Your task to perform on an android device: Do I have any events this weekend? Image 0: 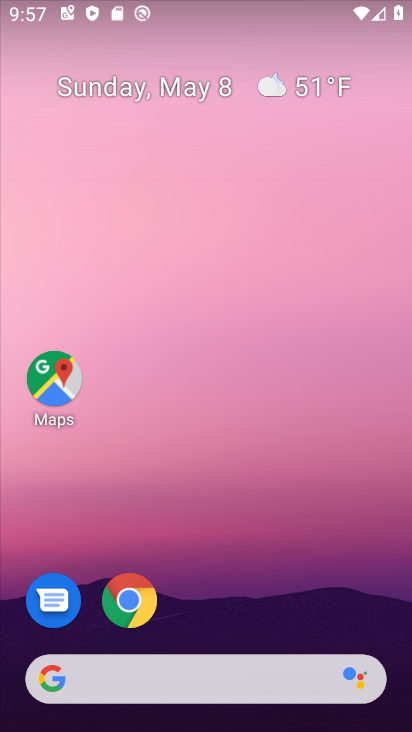
Step 0: drag from (252, 555) to (191, 0)
Your task to perform on an android device: Do I have any events this weekend? Image 1: 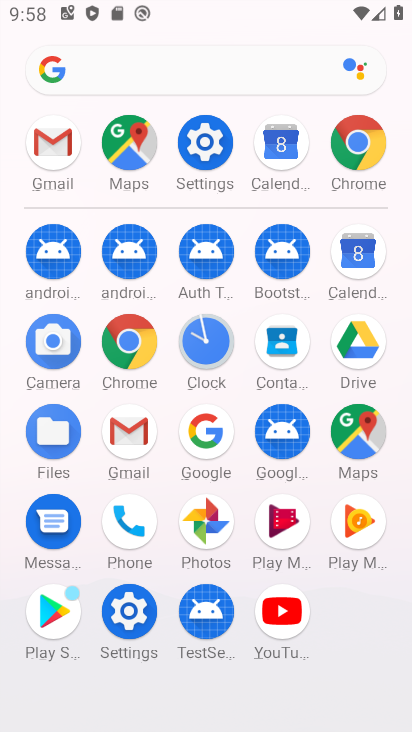
Step 1: drag from (15, 586) to (25, 268)
Your task to perform on an android device: Do I have any events this weekend? Image 2: 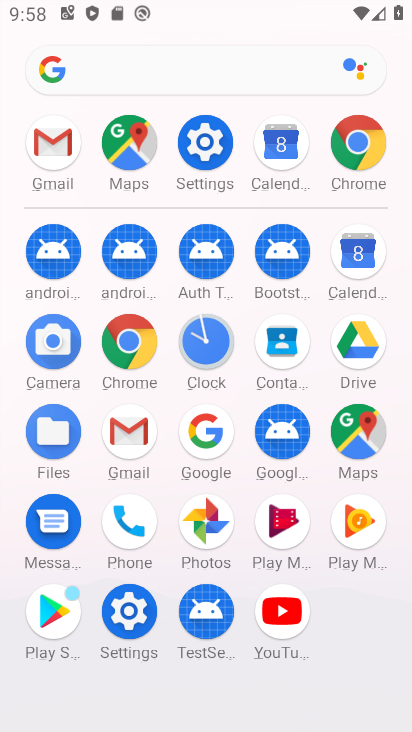
Step 2: click (10, 232)
Your task to perform on an android device: Do I have any events this weekend? Image 3: 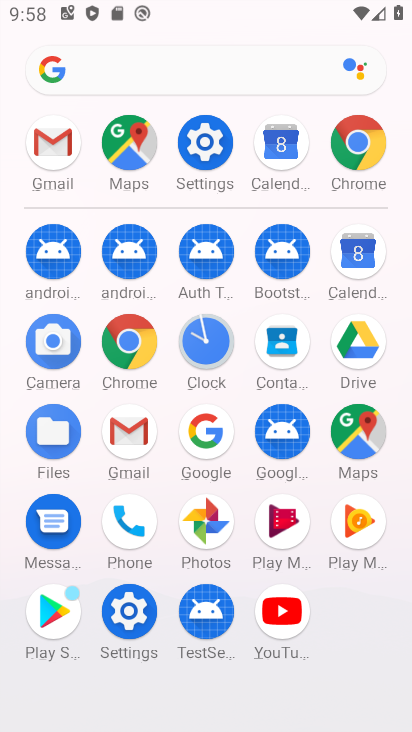
Step 3: click (352, 246)
Your task to perform on an android device: Do I have any events this weekend? Image 4: 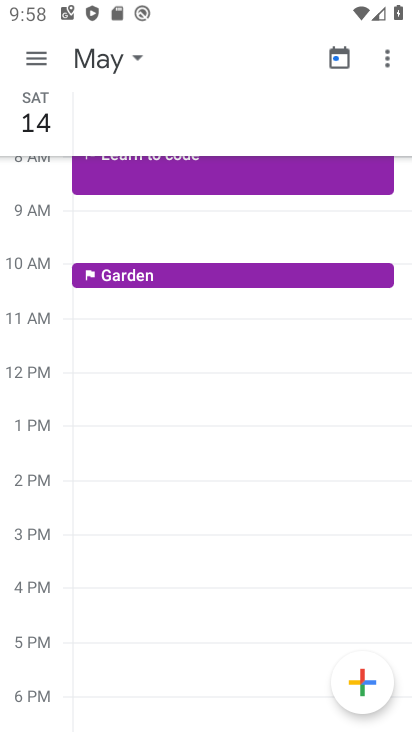
Step 4: click (39, 58)
Your task to perform on an android device: Do I have any events this weekend? Image 5: 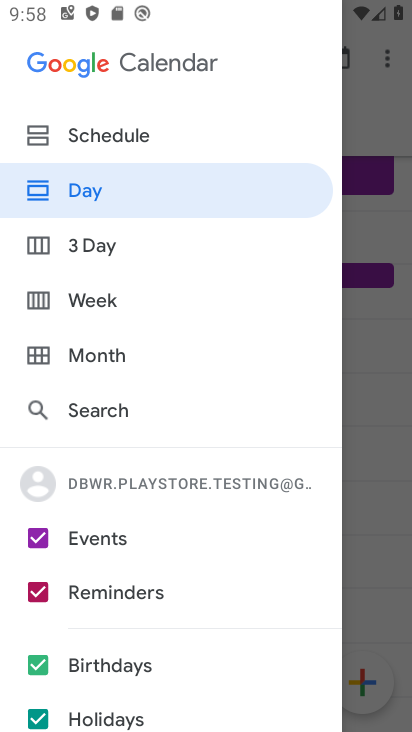
Step 5: click (373, 115)
Your task to perform on an android device: Do I have any events this weekend? Image 6: 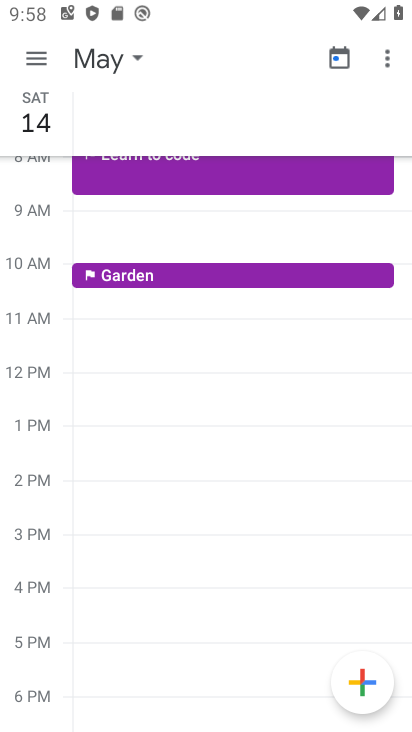
Step 6: click (338, 61)
Your task to perform on an android device: Do I have any events this weekend? Image 7: 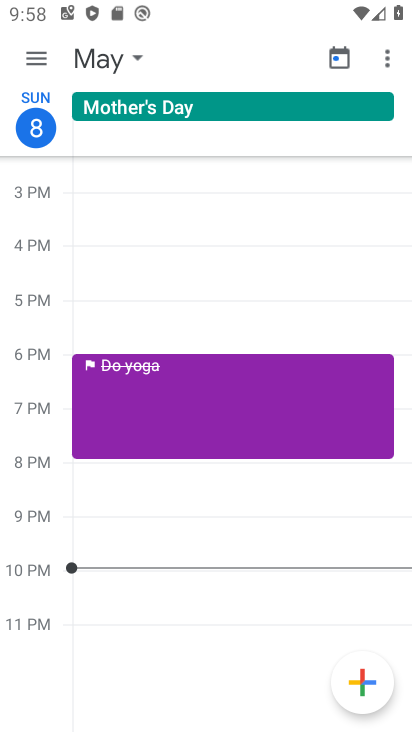
Step 7: click (96, 60)
Your task to perform on an android device: Do I have any events this weekend? Image 8: 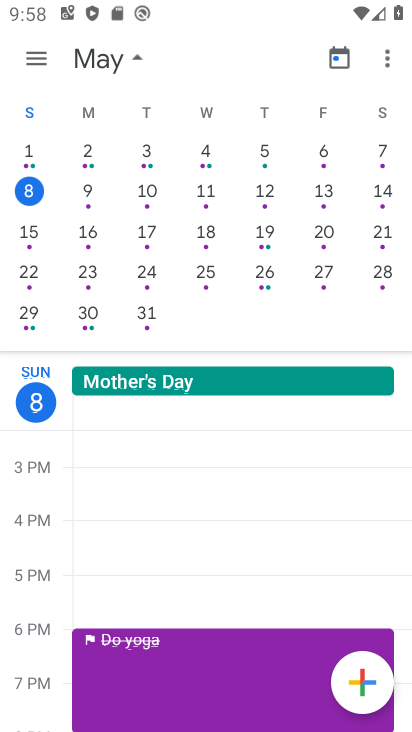
Step 8: click (381, 185)
Your task to perform on an android device: Do I have any events this weekend? Image 9: 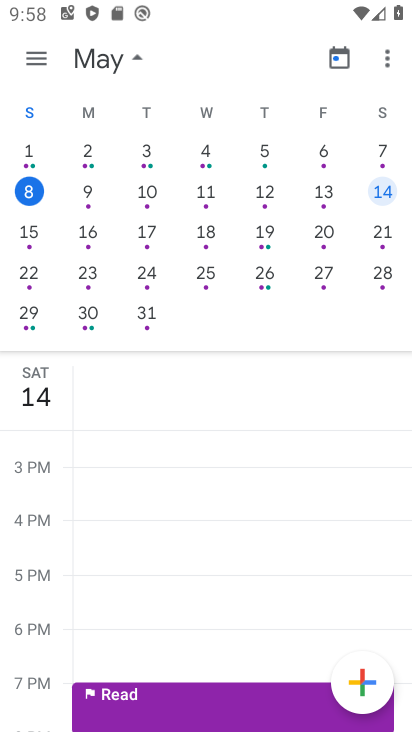
Step 9: click (35, 49)
Your task to perform on an android device: Do I have any events this weekend? Image 10: 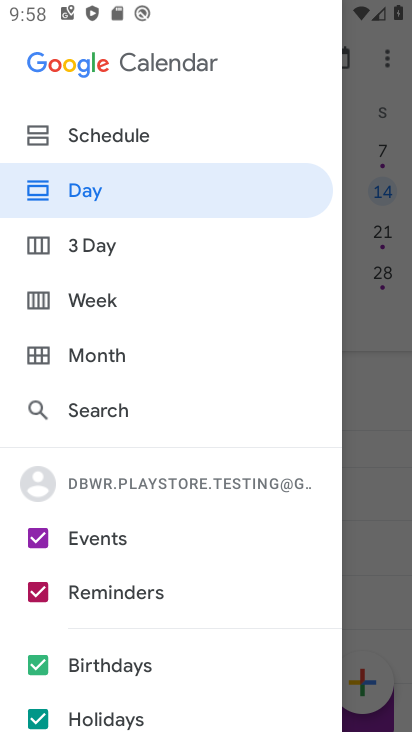
Step 10: click (76, 184)
Your task to perform on an android device: Do I have any events this weekend? Image 11: 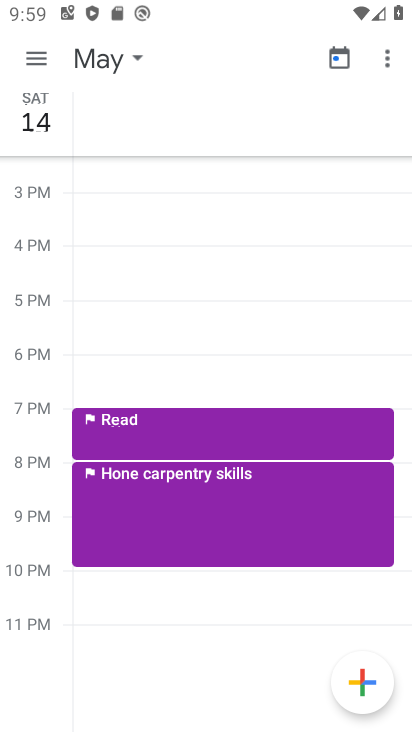
Step 11: task complete